Your task to perform on an android device: allow notifications from all sites in the chrome app Image 0: 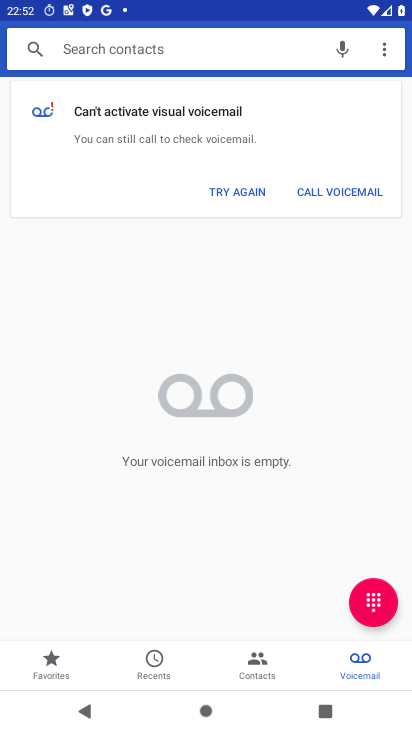
Step 0: press home button
Your task to perform on an android device: allow notifications from all sites in the chrome app Image 1: 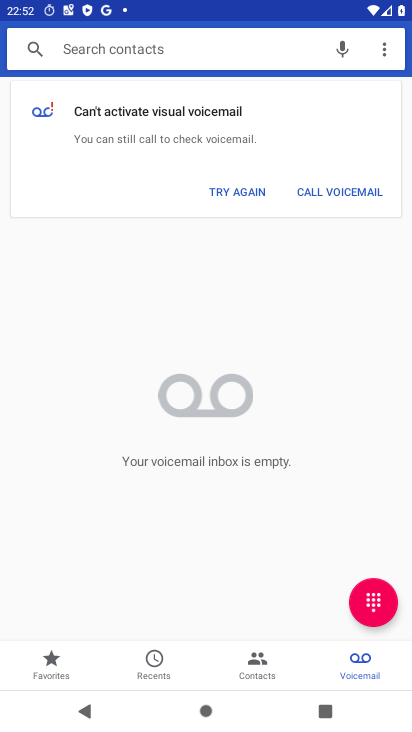
Step 1: press home button
Your task to perform on an android device: allow notifications from all sites in the chrome app Image 2: 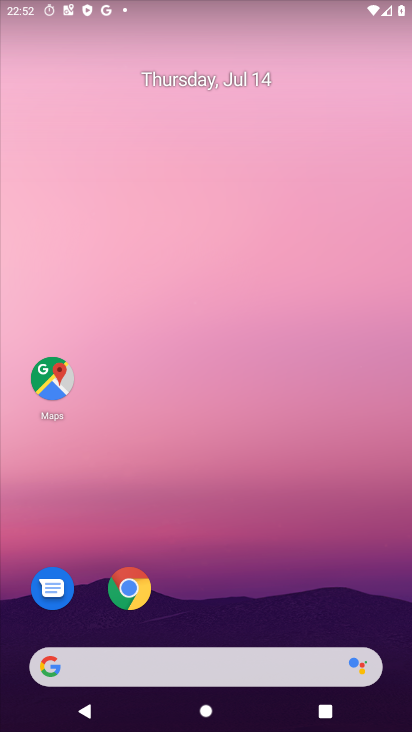
Step 2: drag from (255, 625) to (235, 183)
Your task to perform on an android device: allow notifications from all sites in the chrome app Image 3: 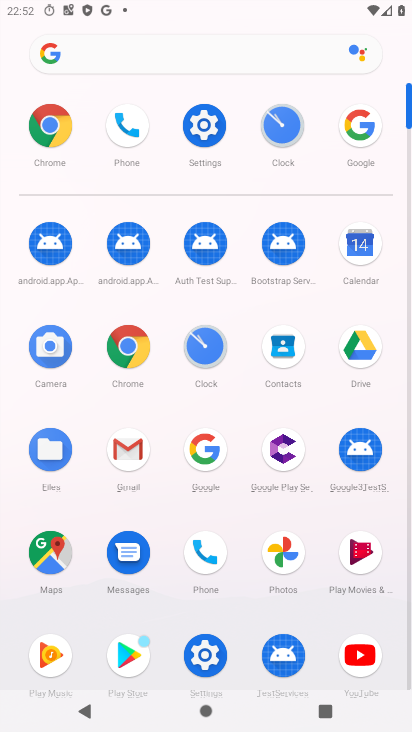
Step 3: click (128, 348)
Your task to perform on an android device: allow notifications from all sites in the chrome app Image 4: 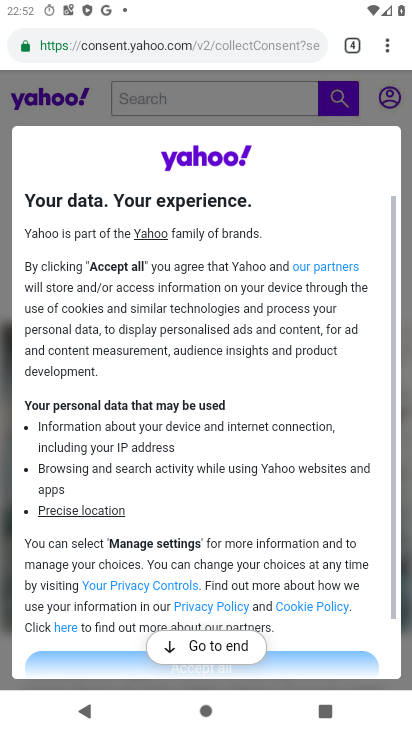
Step 4: click (381, 46)
Your task to perform on an android device: allow notifications from all sites in the chrome app Image 5: 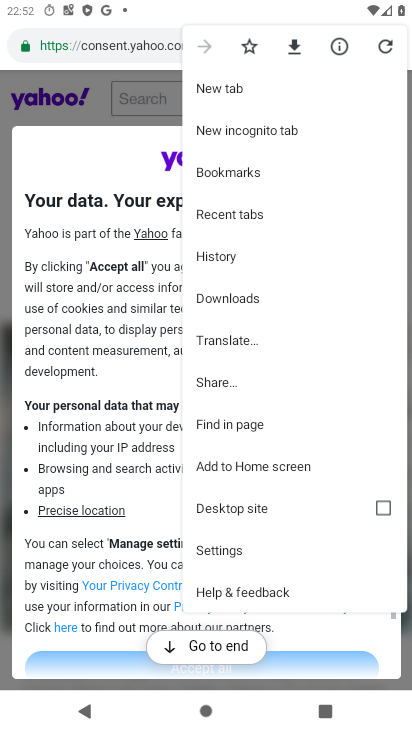
Step 5: click (261, 544)
Your task to perform on an android device: allow notifications from all sites in the chrome app Image 6: 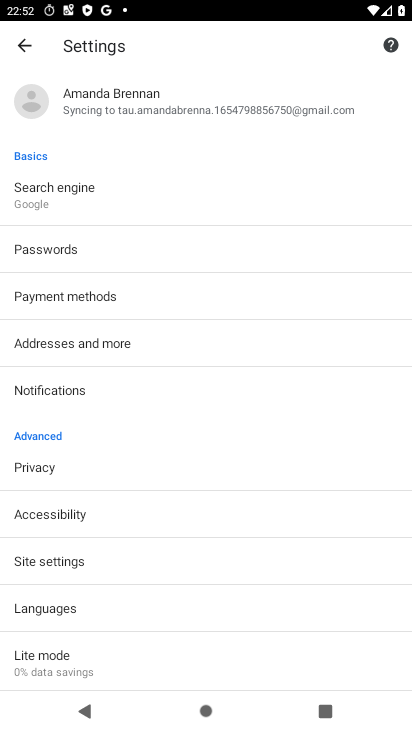
Step 6: click (50, 567)
Your task to perform on an android device: allow notifications from all sites in the chrome app Image 7: 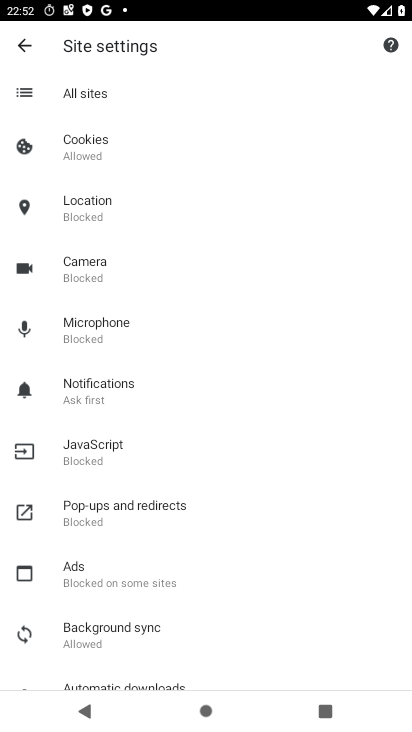
Step 7: click (120, 383)
Your task to perform on an android device: allow notifications from all sites in the chrome app Image 8: 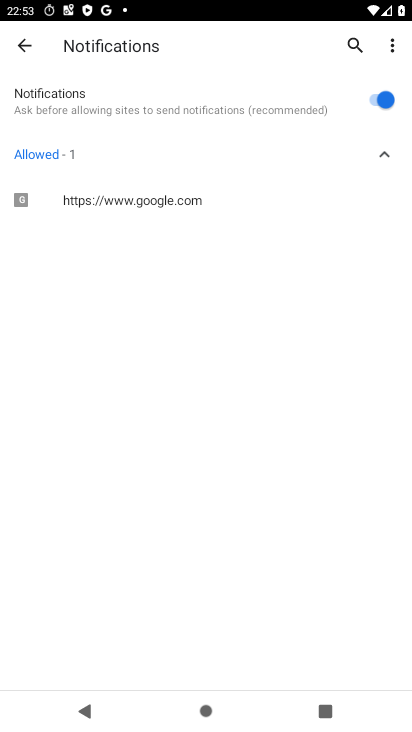
Step 8: task complete